Your task to perform on an android device: toggle priority inbox in the gmail app Image 0: 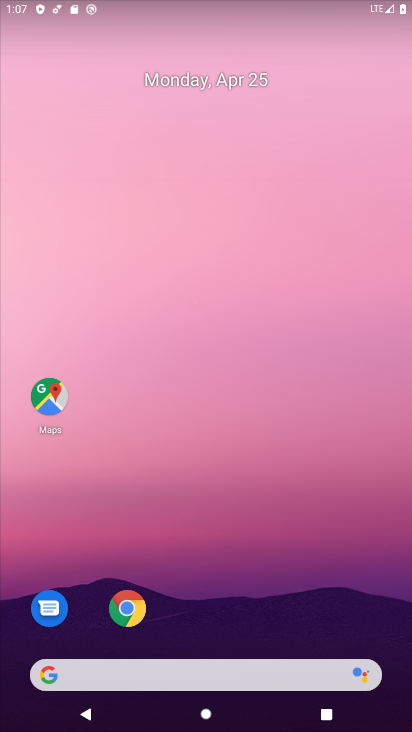
Step 0: drag from (246, 477) to (246, 148)
Your task to perform on an android device: toggle priority inbox in the gmail app Image 1: 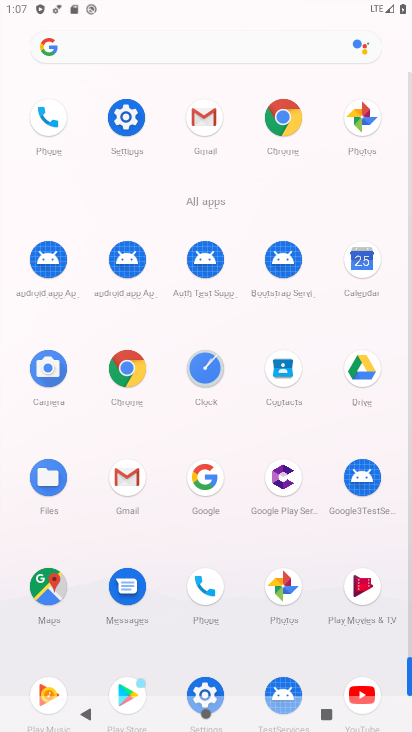
Step 1: click (209, 136)
Your task to perform on an android device: toggle priority inbox in the gmail app Image 2: 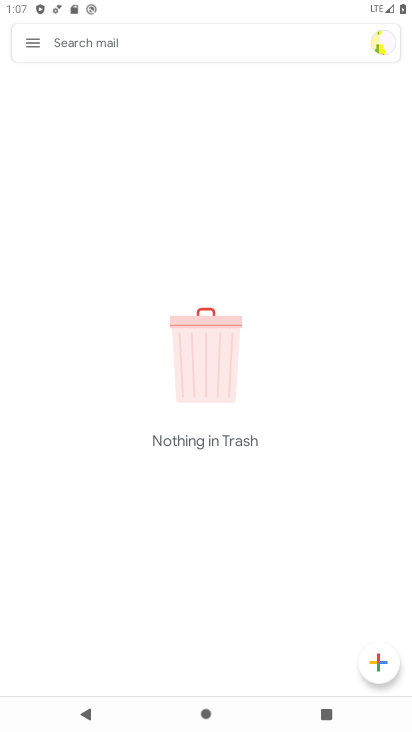
Step 2: click (15, 36)
Your task to perform on an android device: toggle priority inbox in the gmail app Image 3: 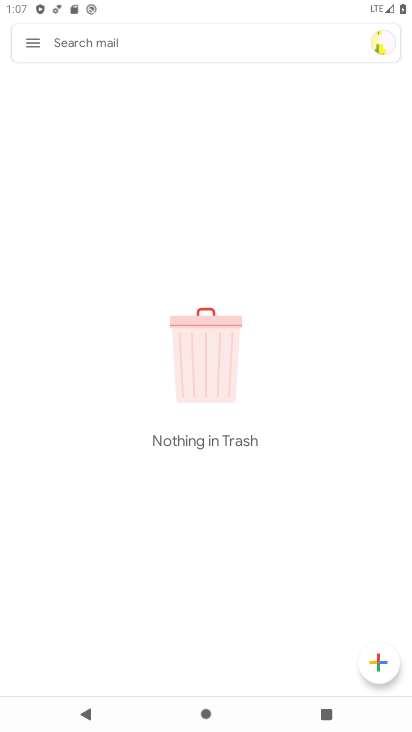
Step 3: click (33, 50)
Your task to perform on an android device: toggle priority inbox in the gmail app Image 4: 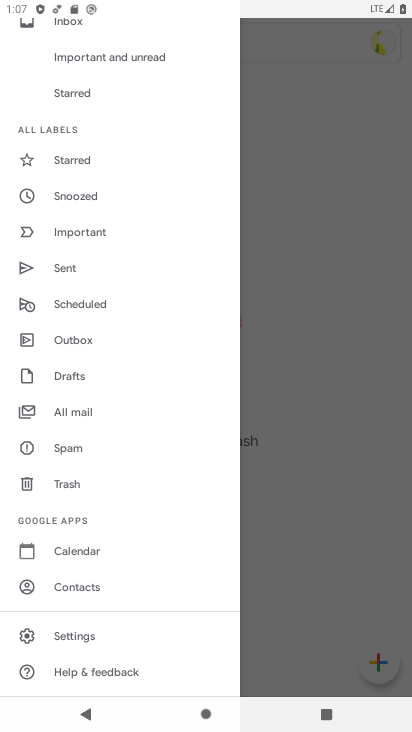
Step 4: click (124, 622)
Your task to perform on an android device: toggle priority inbox in the gmail app Image 5: 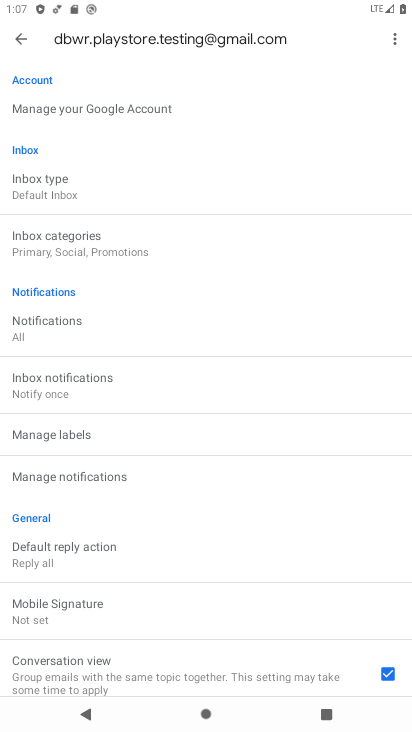
Step 5: click (105, 178)
Your task to perform on an android device: toggle priority inbox in the gmail app Image 6: 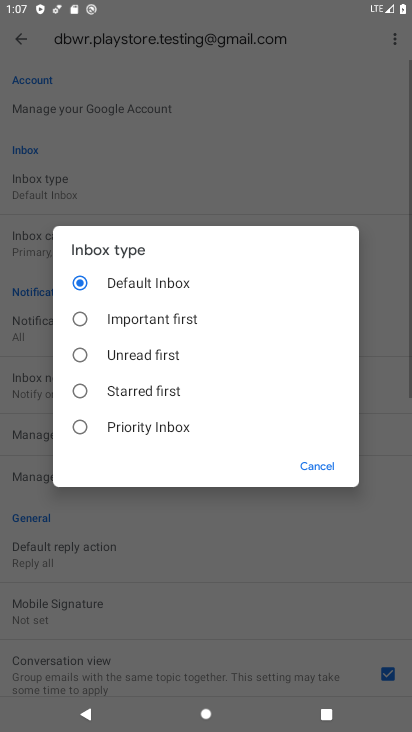
Step 6: click (128, 431)
Your task to perform on an android device: toggle priority inbox in the gmail app Image 7: 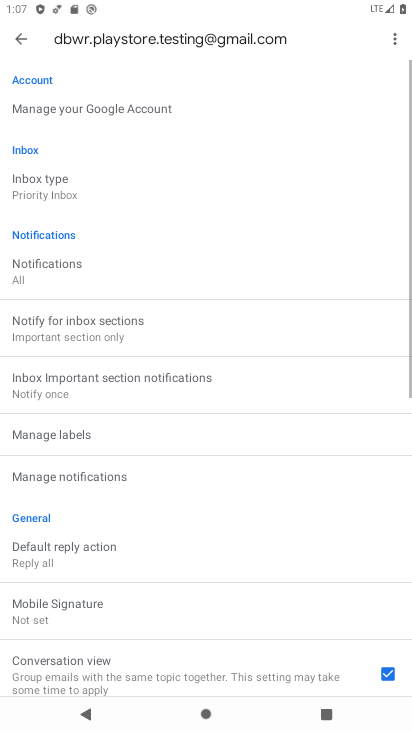
Step 7: task complete